Your task to perform on an android device: turn on the 24-hour format for clock Image 0: 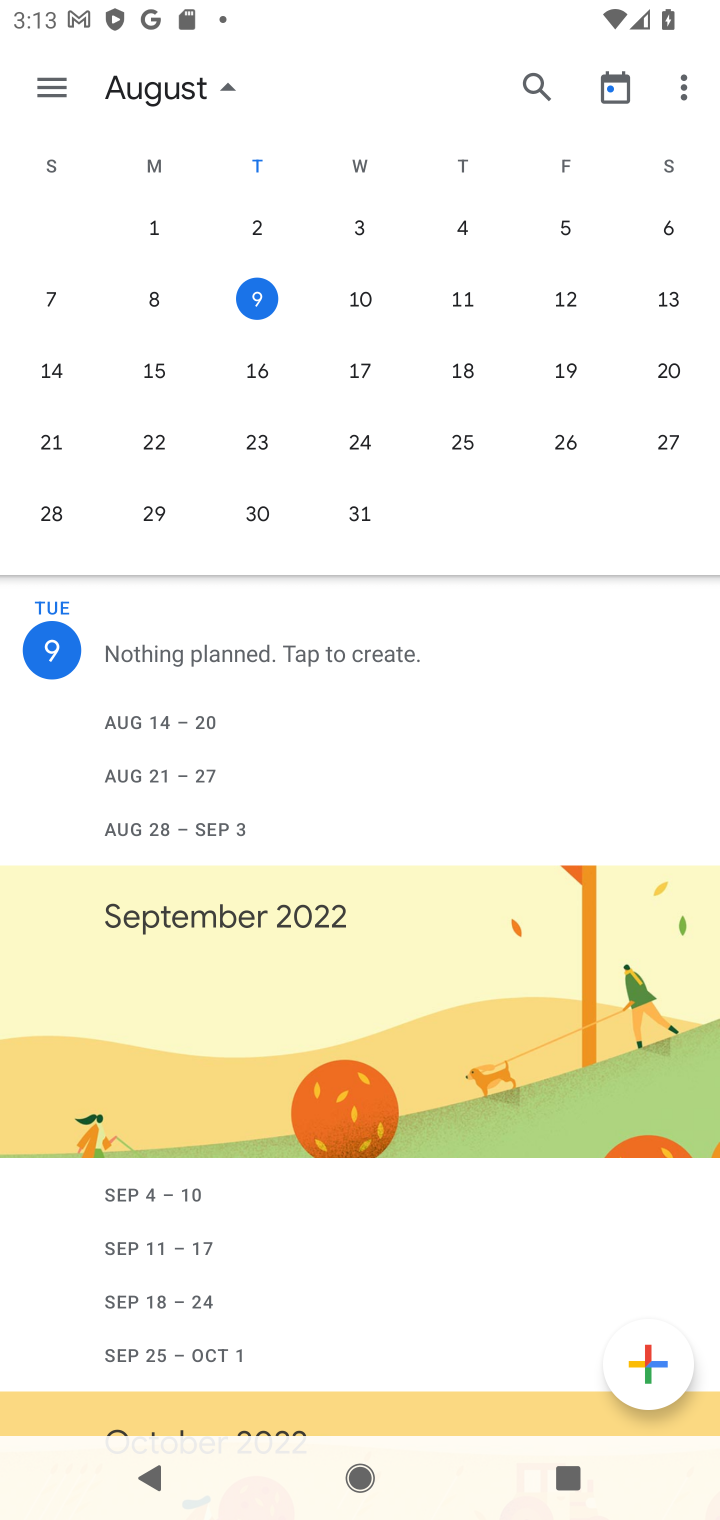
Step 0: press home button
Your task to perform on an android device: turn on the 24-hour format for clock Image 1: 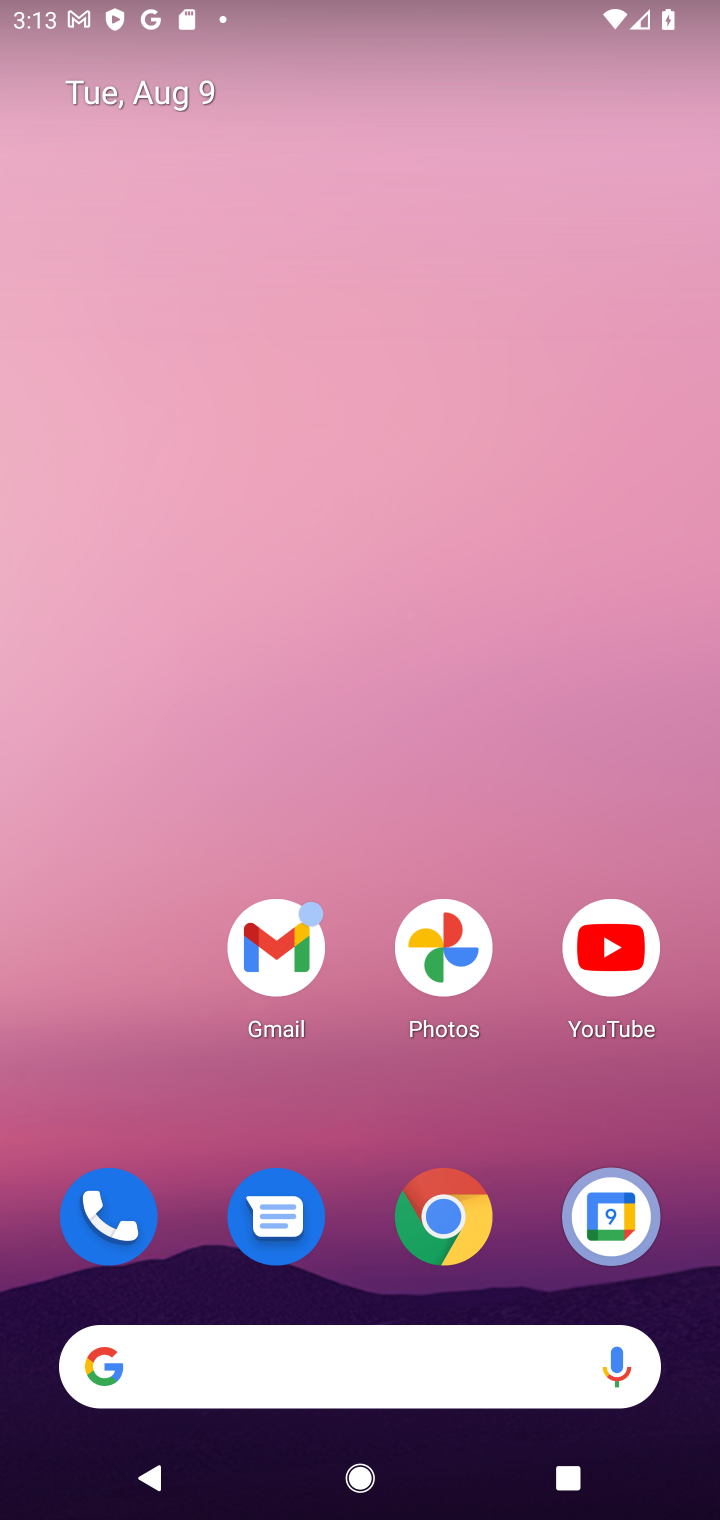
Step 1: drag from (374, 1097) to (370, 23)
Your task to perform on an android device: turn on the 24-hour format for clock Image 2: 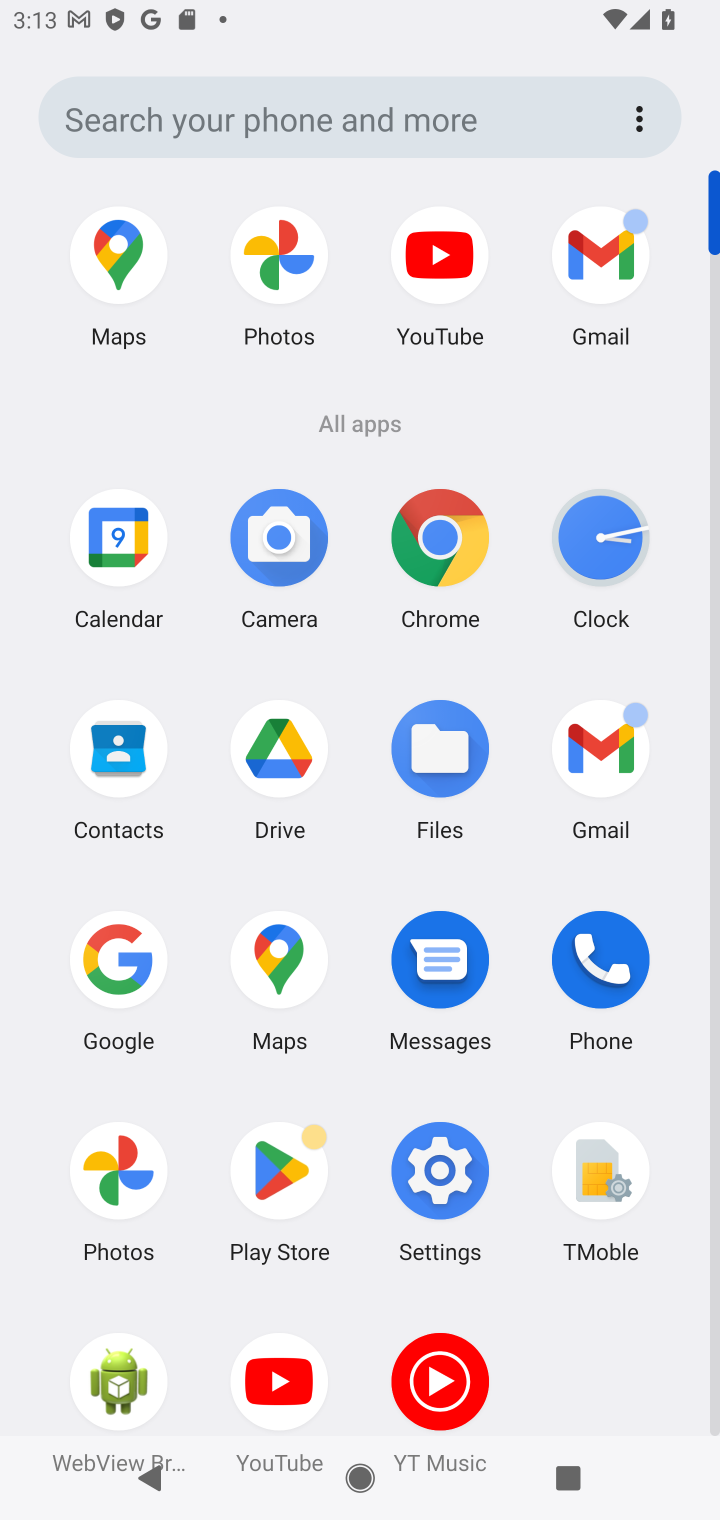
Step 2: click (604, 578)
Your task to perform on an android device: turn on the 24-hour format for clock Image 3: 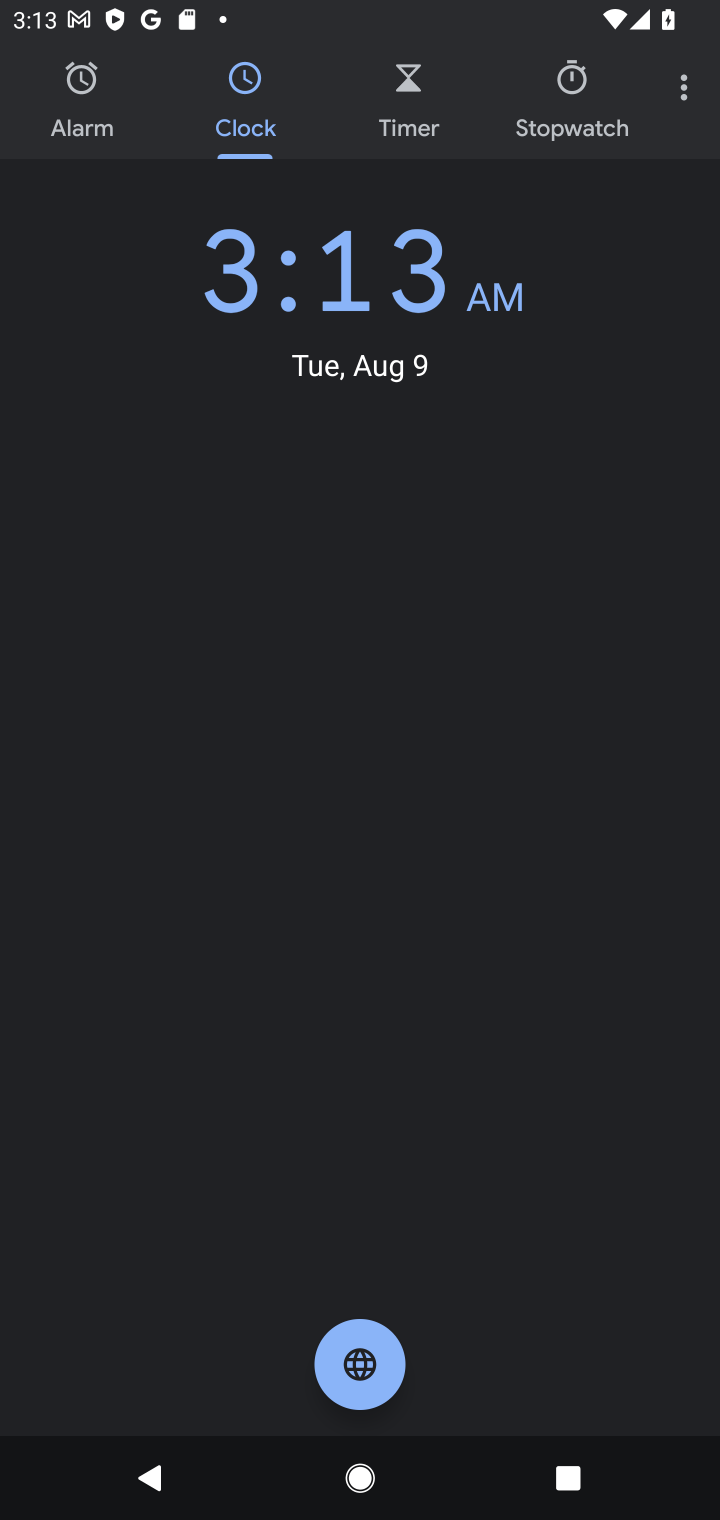
Step 3: click (678, 87)
Your task to perform on an android device: turn on the 24-hour format for clock Image 4: 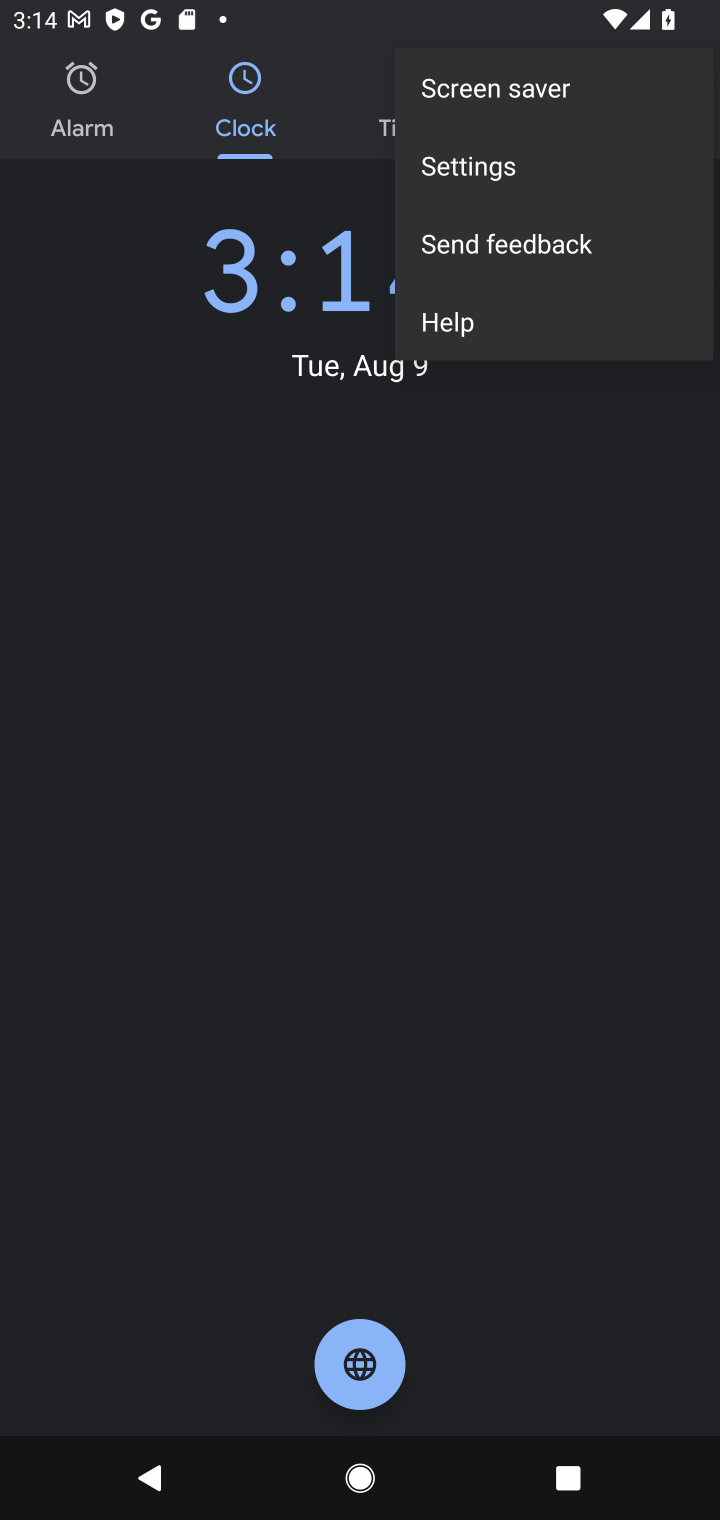
Step 4: click (570, 181)
Your task to perform on an android device: turn on the 24-hour format for clock Image 5: 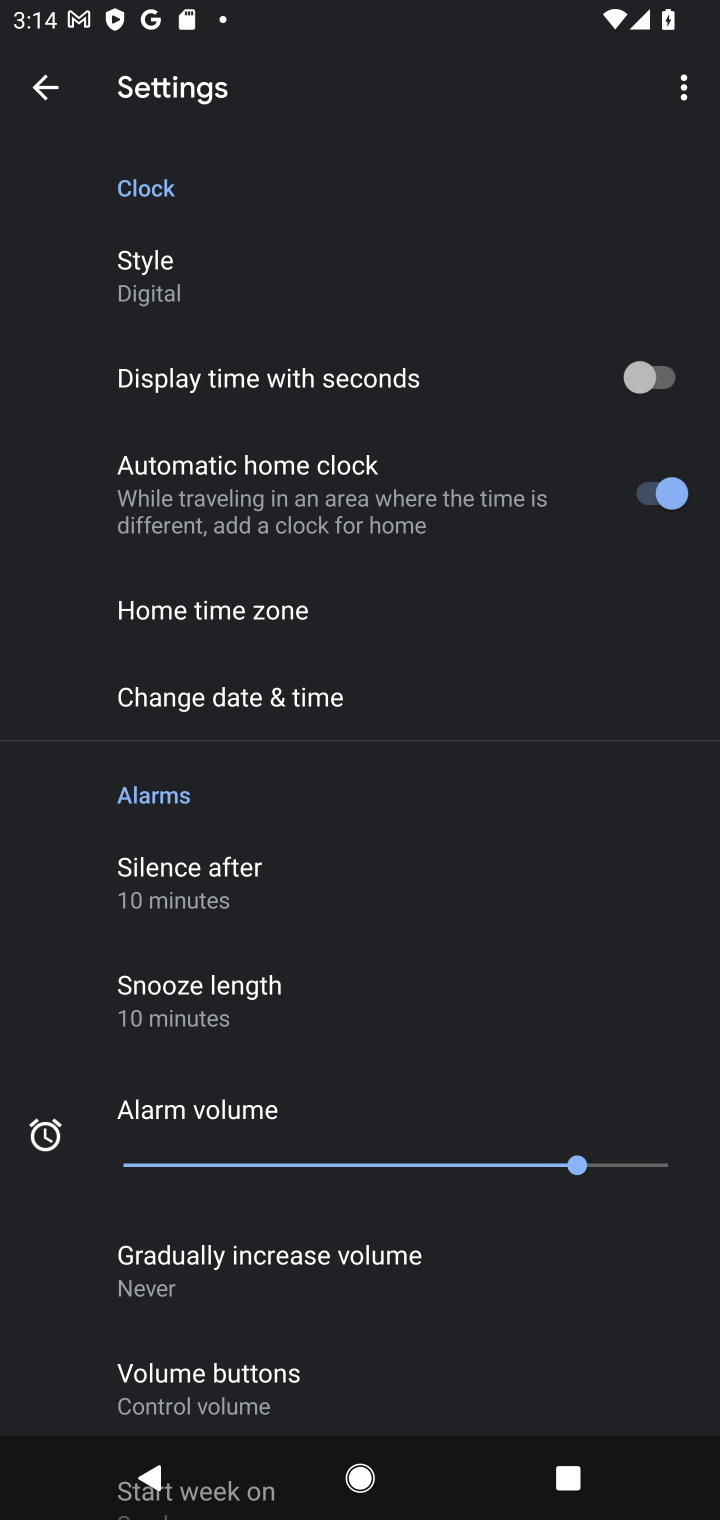
Step 5: click (413, 705)
Your task to perform on an android device: turn on the 24-hour format for clock Image 6: 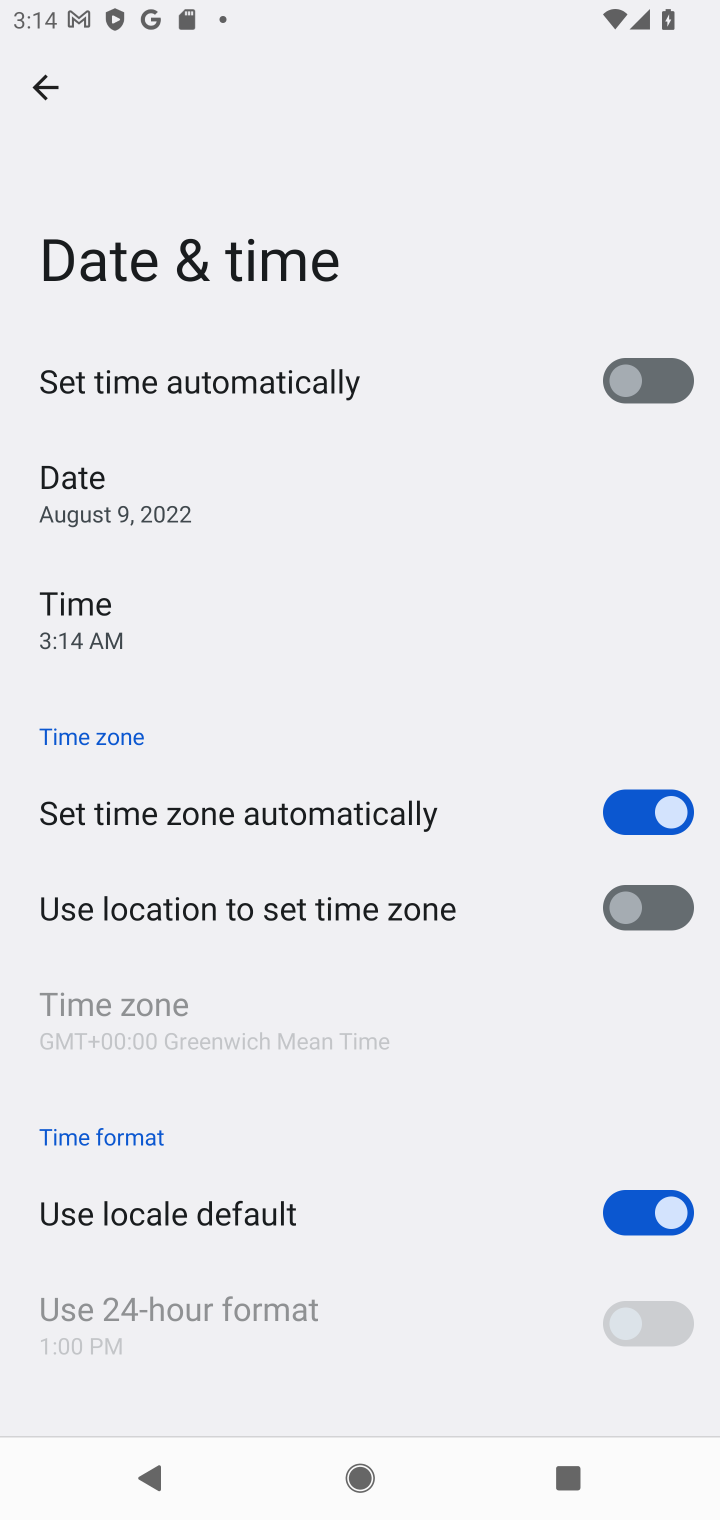
Step 6: click (617, 1237)
Your task to perform on an android device: turn on the 24-hour format for clock Image 7: 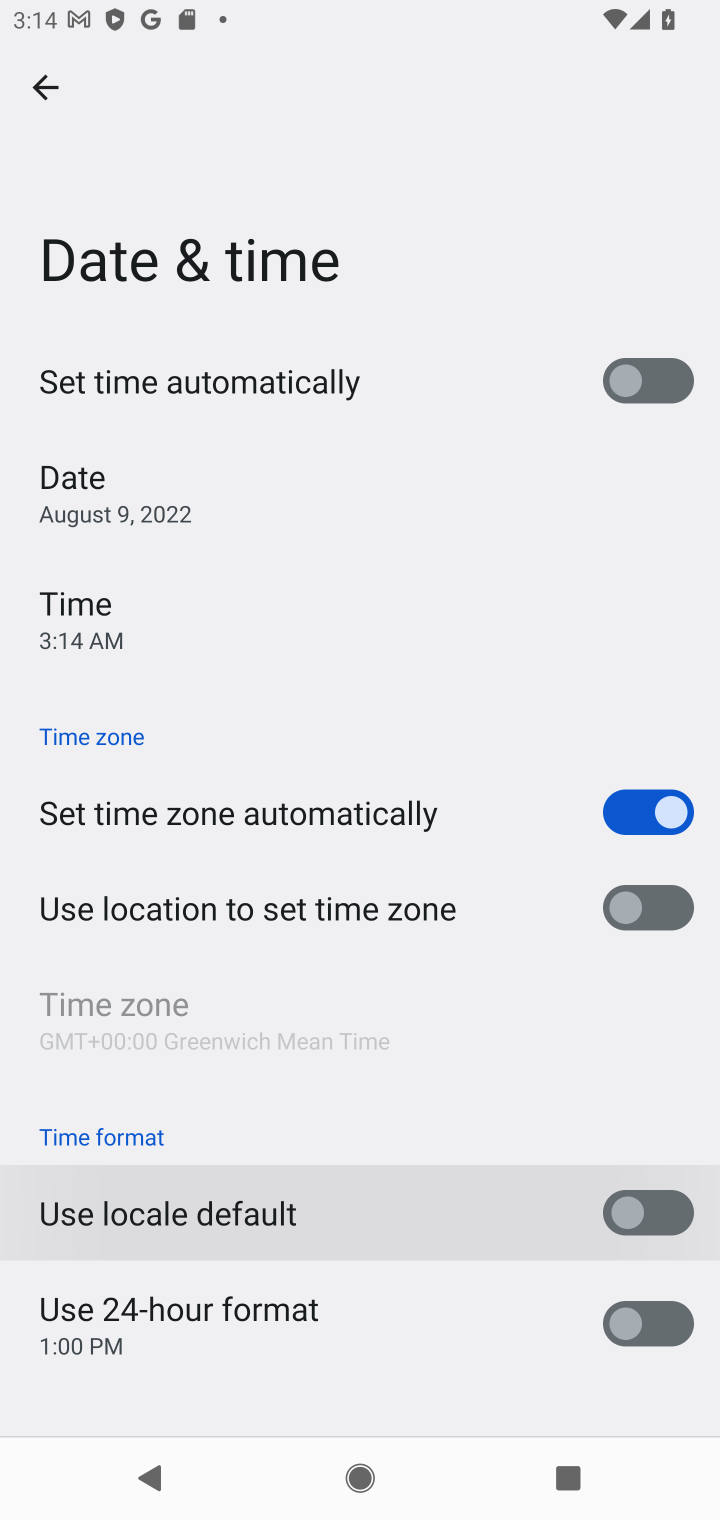
Step 7: click (640, 1293)
Your task to perform on an android device: turn on the 24-hour format for clock Image 8: 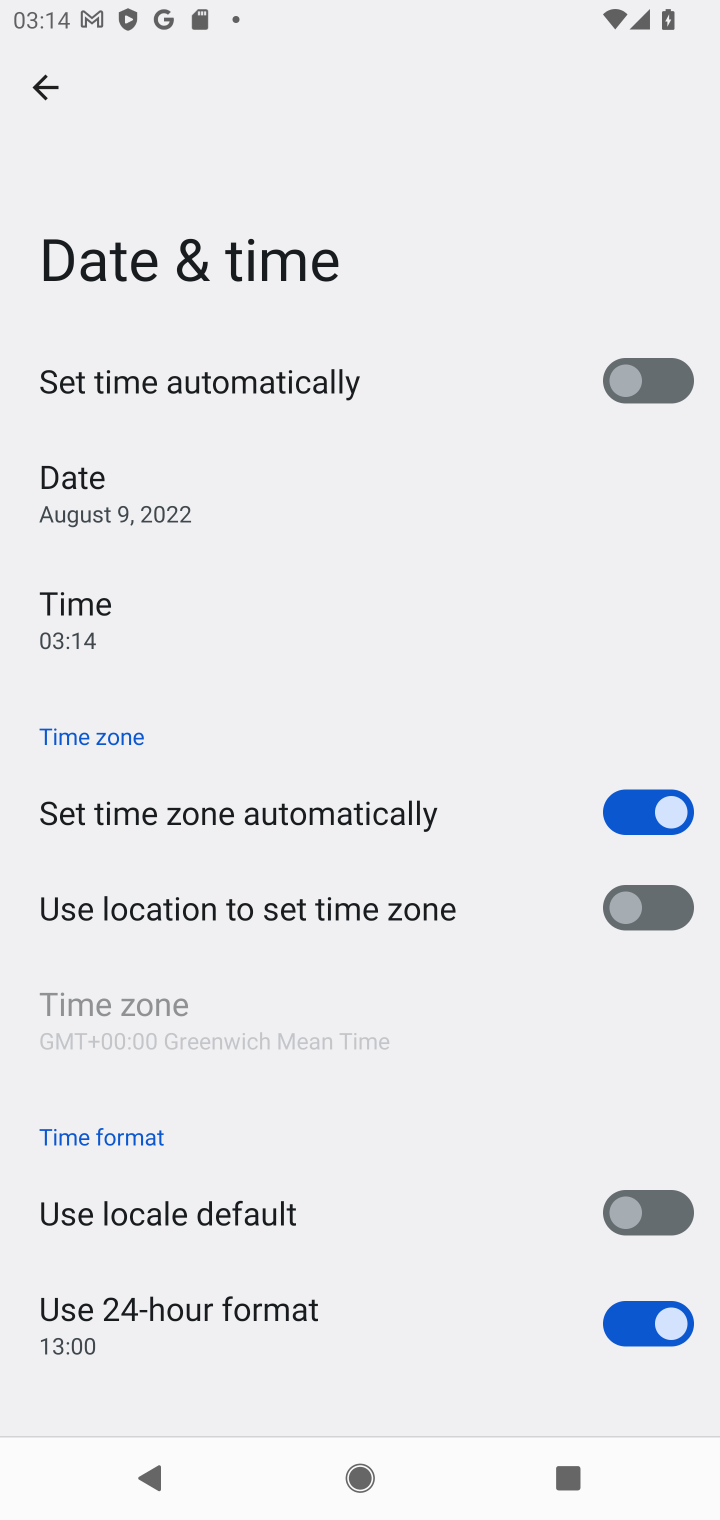
Step 8: task complete